Your task to perform on an android device: turn off location Image 0: 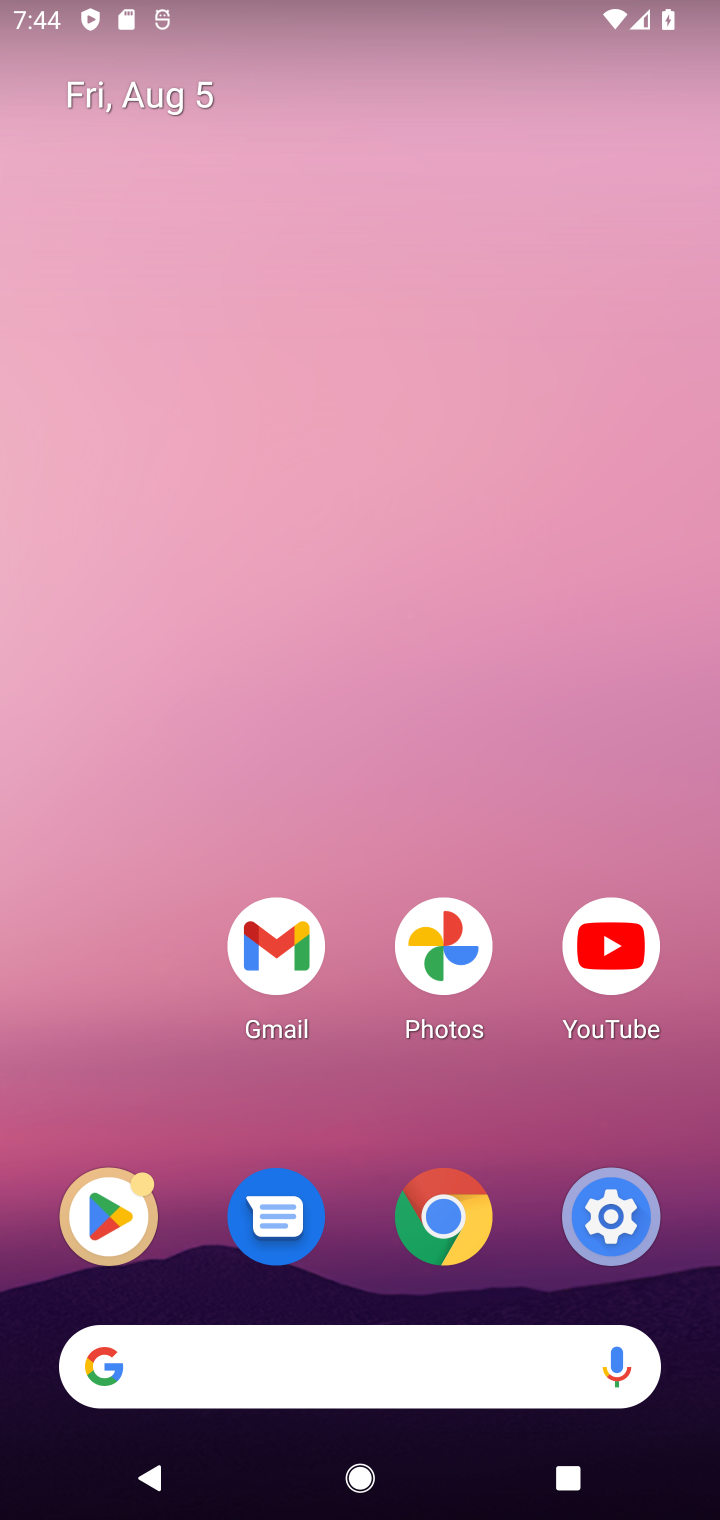
Step 0: drag from (360, 1148) to (319, 56)
Your task to perform on an android device: turn off location Image 1: 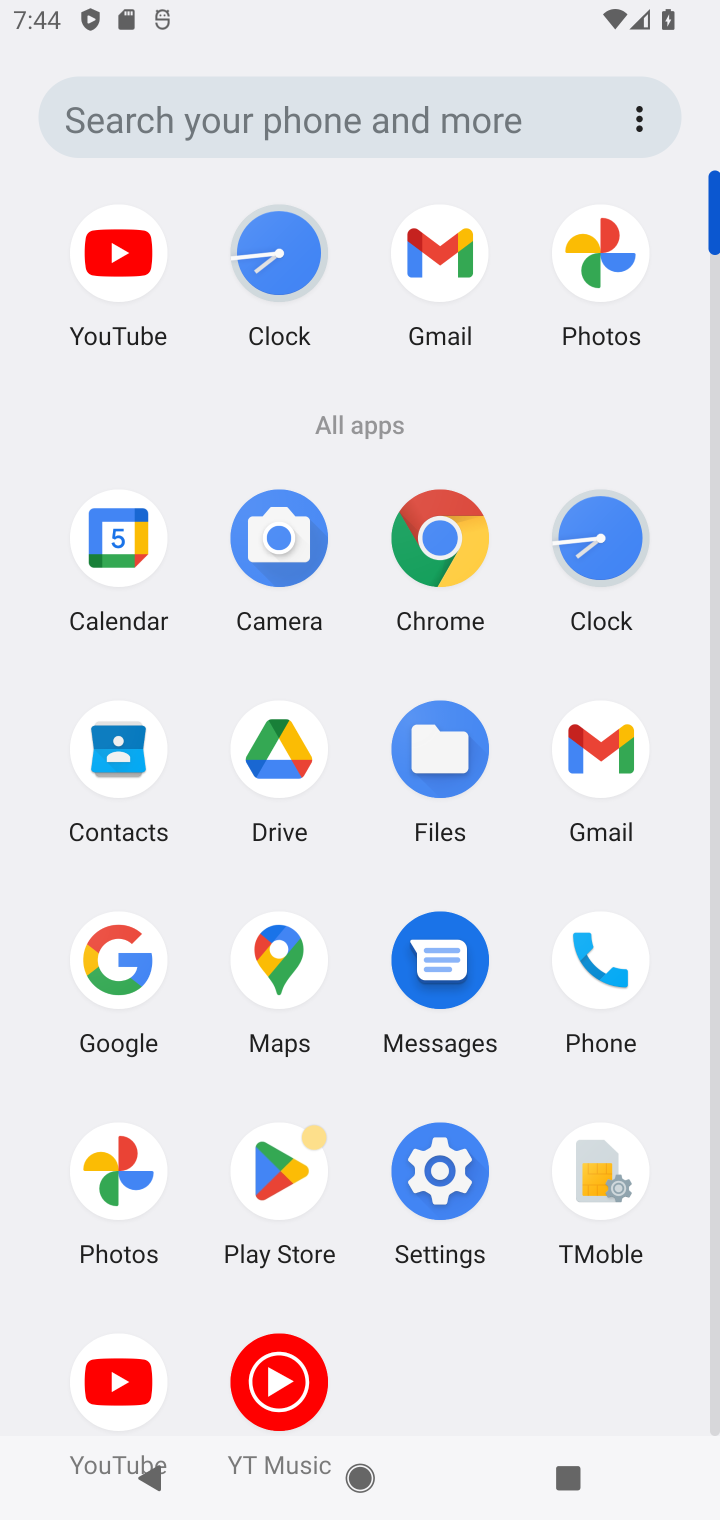
Step 1: press home button
Your task to perform on an android device: turn off location Image 2: 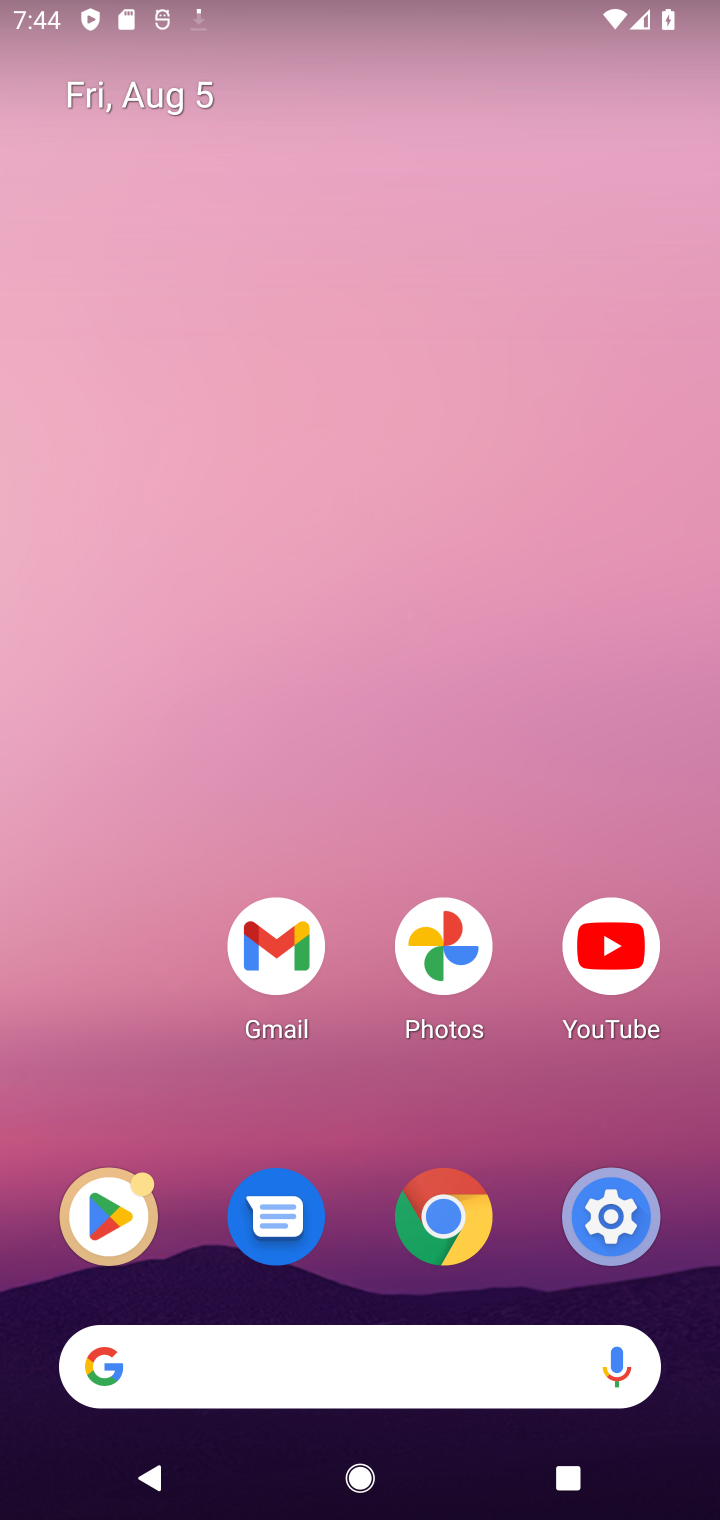
Step 2: drag from (317, 666) to (317, 49)
Your task to perform on an android device: turn off location Image 3: 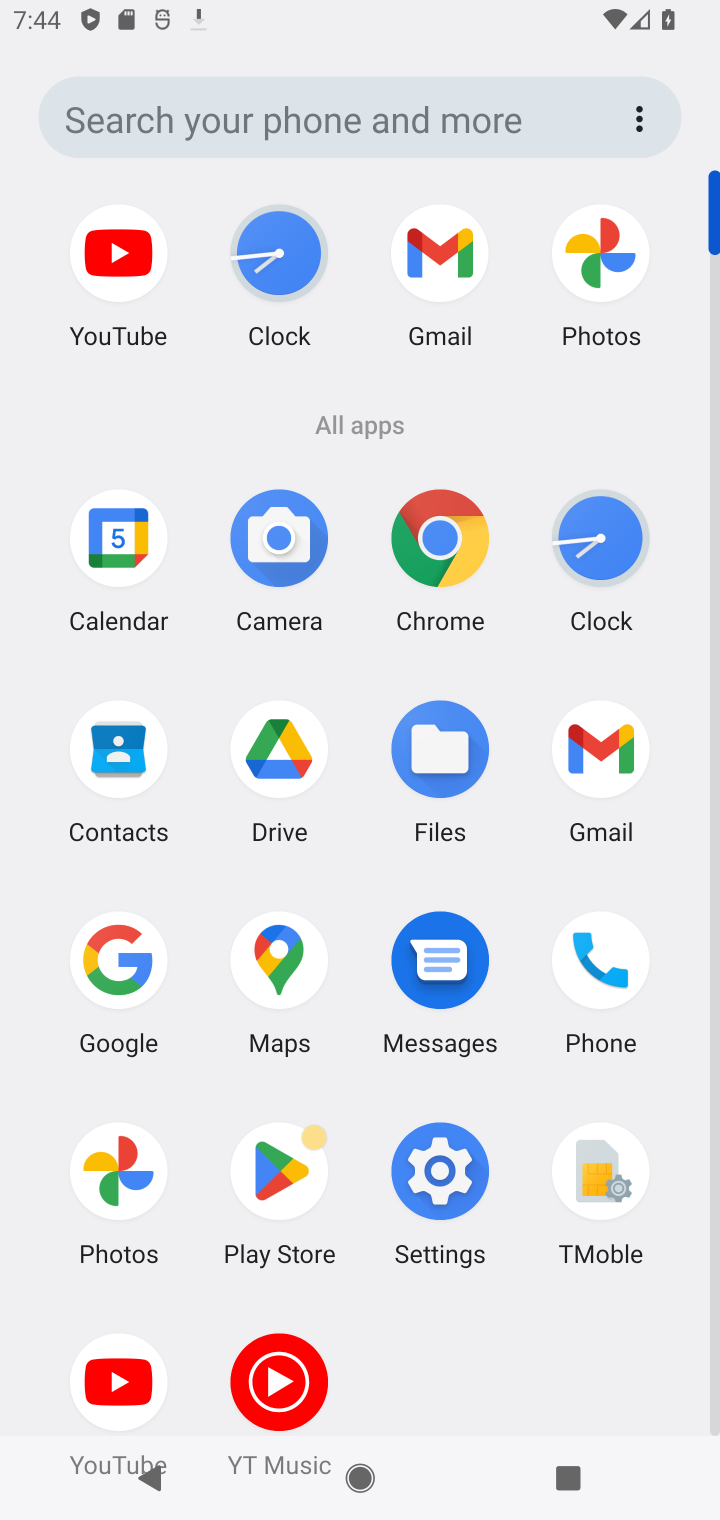
Step 3: click (433, 1161)
Your task to perform on an android device: turn off location Image 4: 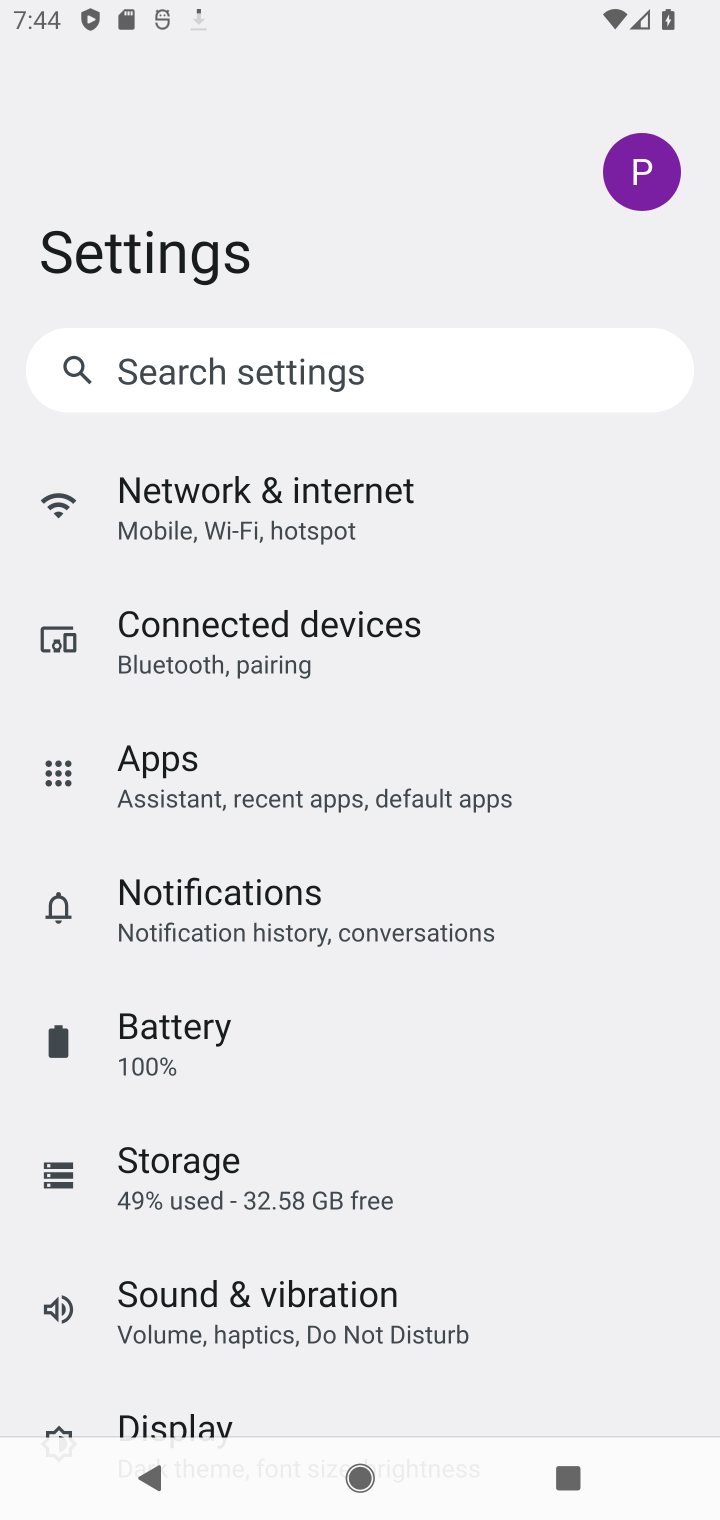
Step 4: drag from (354, 1290) to (303, 230)
Your task to perform on an android device: turn off location Image 5: 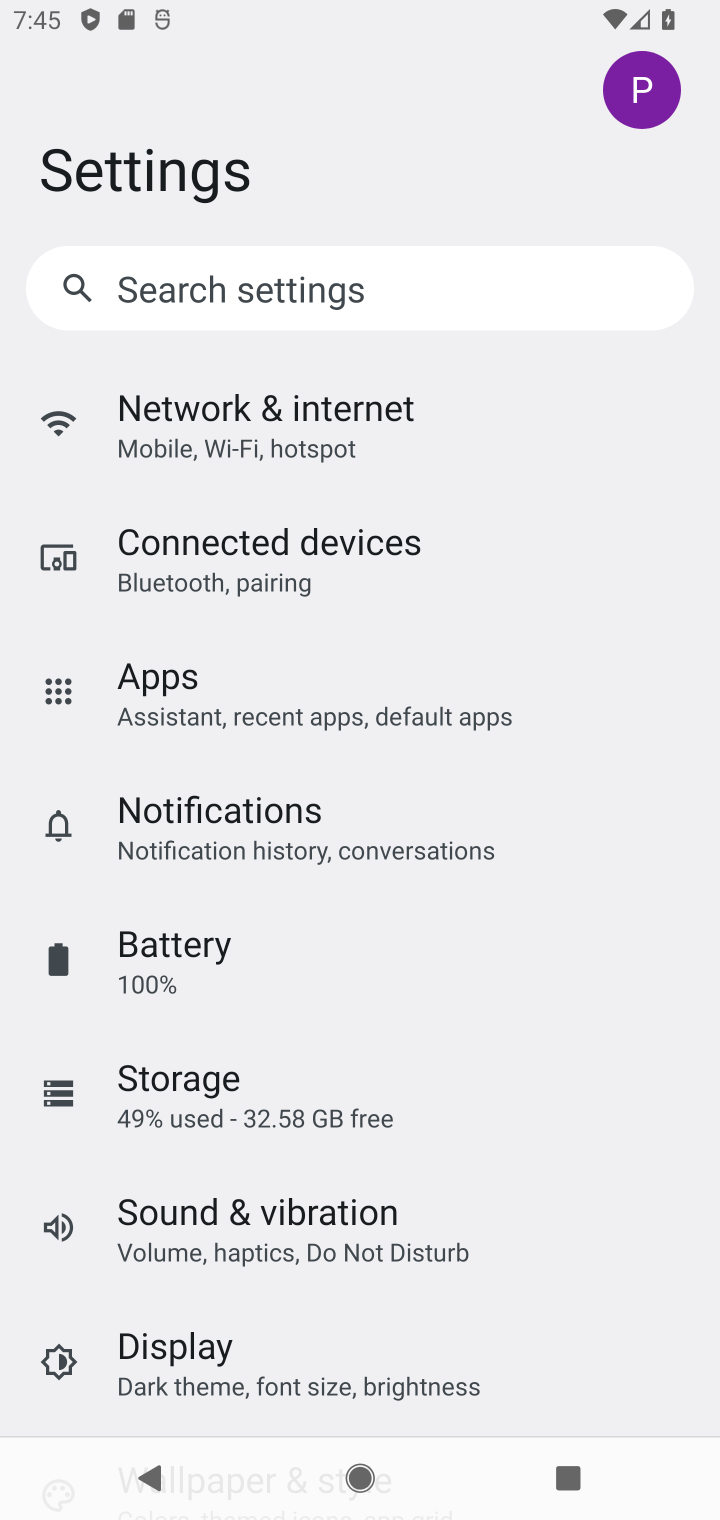
Step 5: drag from (362, 1319) to (331, 244)
Your task to perform on an android device: turn off location Image 6: 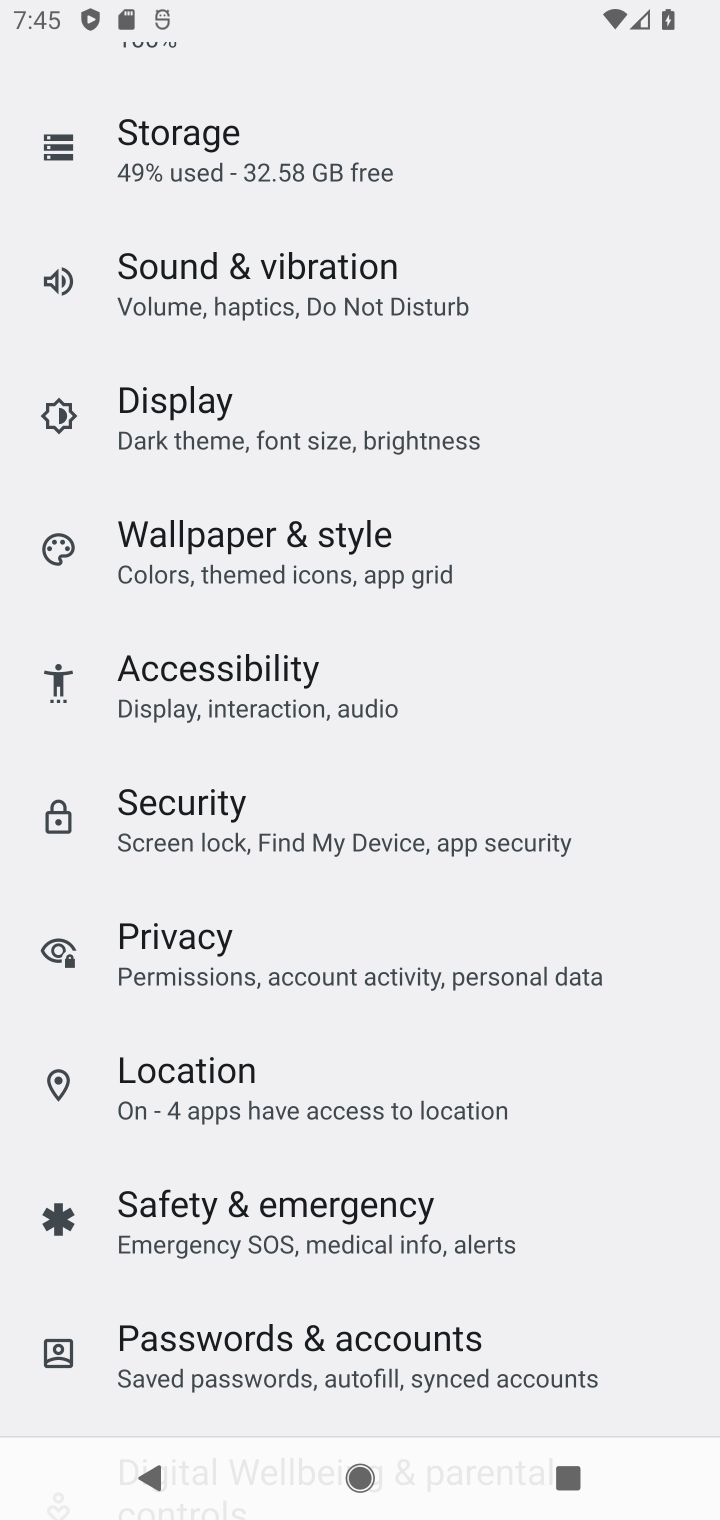
Step 6: click (301, 1070)
Your task to perform on an android device: turn off location Image 7: 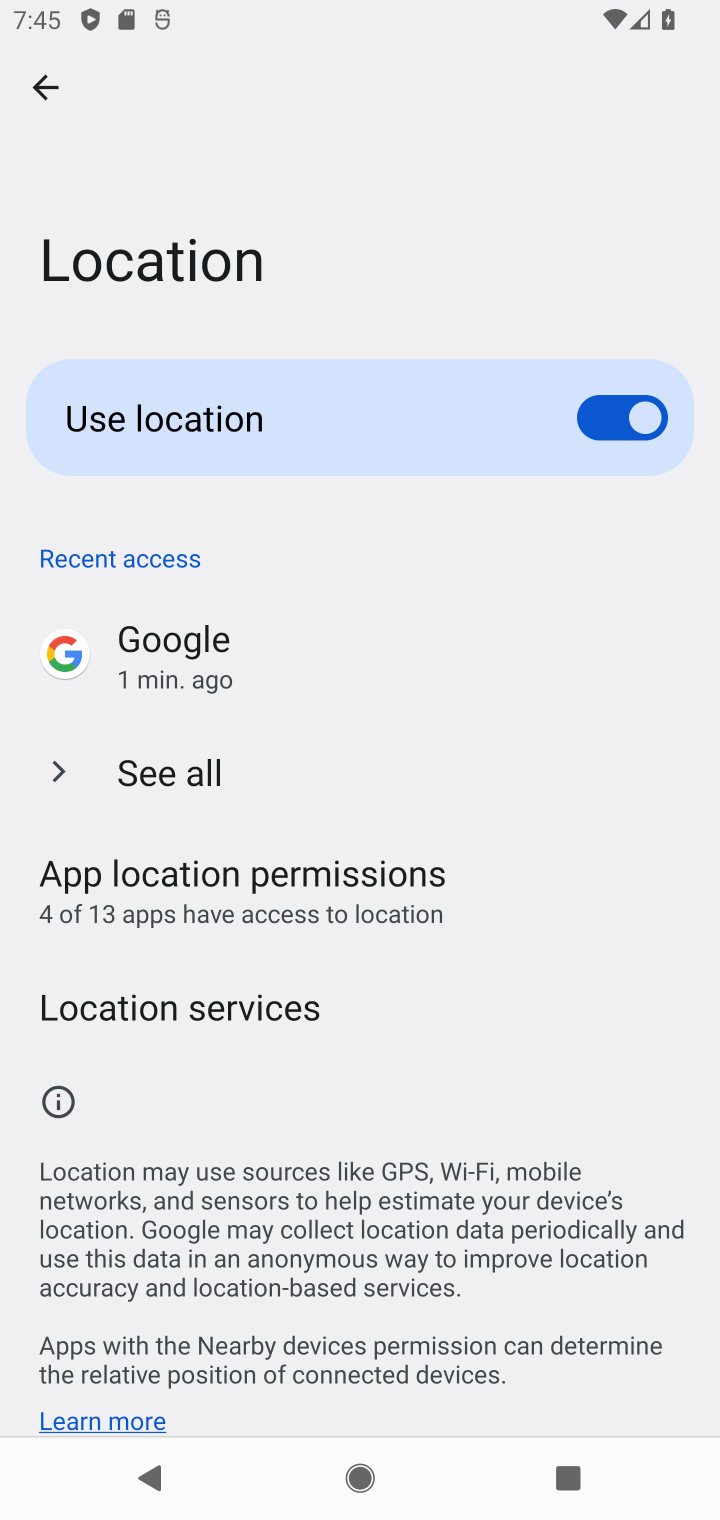
Step 7: click (617, 410)
Your task to perform on an android device: turn off location Image 8: 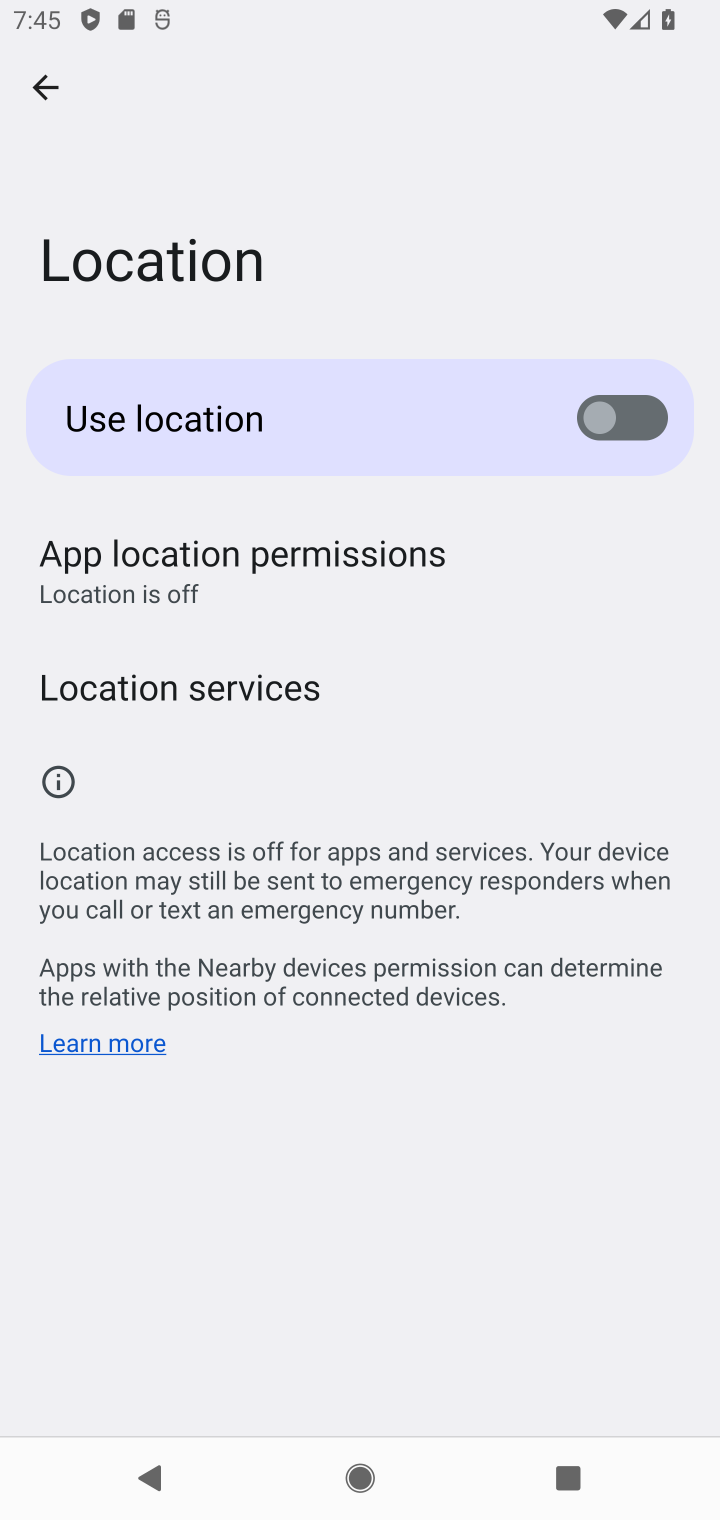
Step 8: task complete